Your task to perform on an android device: turn off translation in the chrome app Image 0: 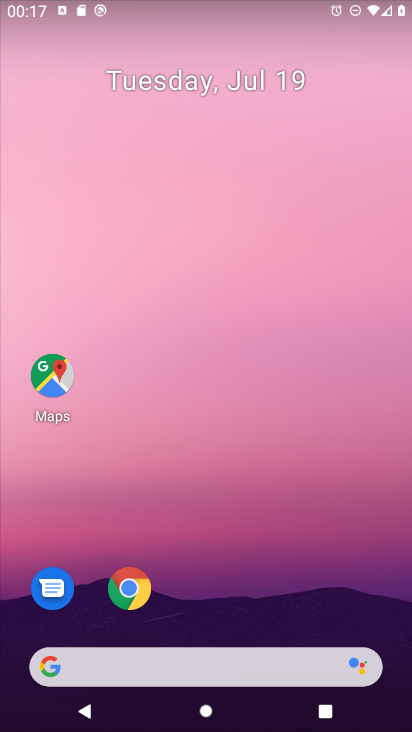
Step 0: click (128, 589)
Your task to perform on an android device: turn off translation in the chrome app Image 1: 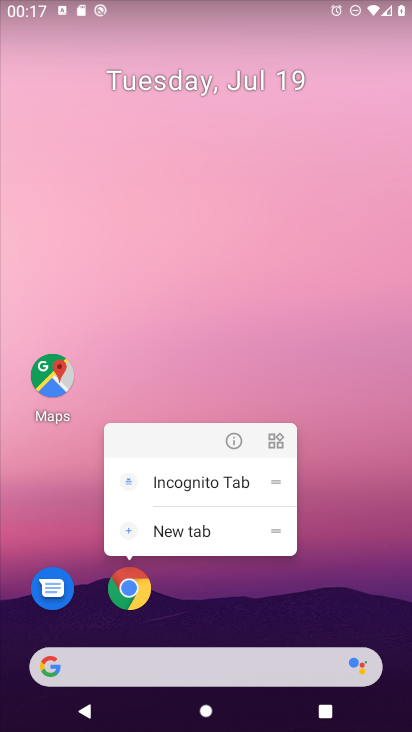
Step 1: click (133, 588)
Your task to perform on an android device: turn off translation in the chrome app Image 2: 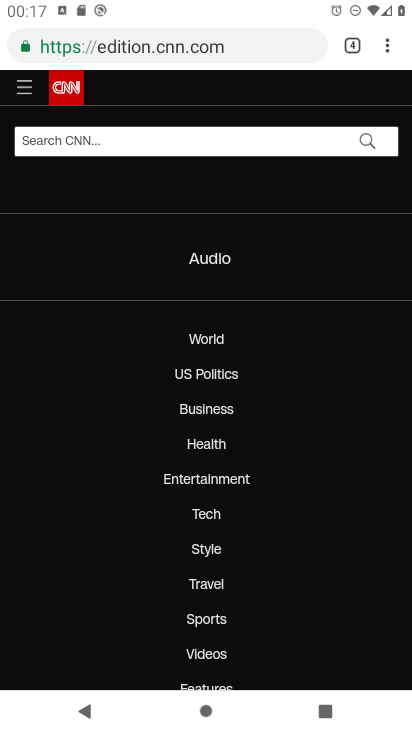
Step 2: click (384, 50)
Your task to perform on an android device: turn off translation in the chrome app Image 3: 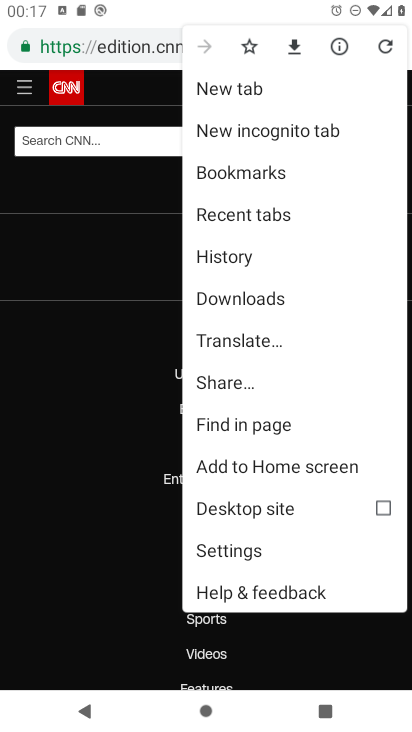
Step 3: click (233, 545)
Your task to perform on an android device: turn off translation in the chrome app Image 4: 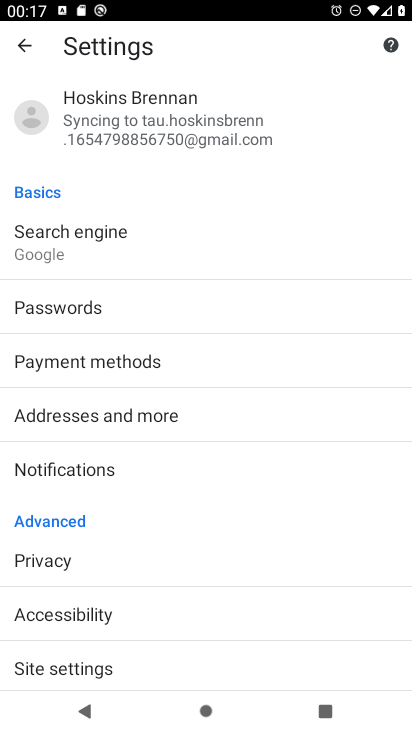
Step 4: drag from (164, 631) to (232, 228)
Your task to perform on an android device: turn off translation in the chrome app Image 5: 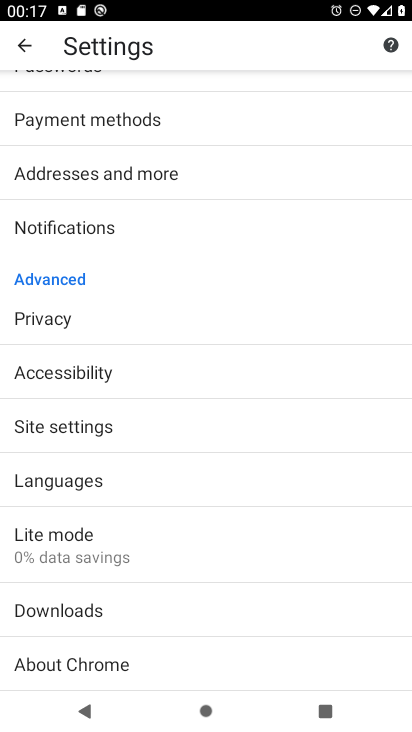
Step 5: click (59, 491)
Your task to perform on an android device: turn off translation in the chrome app Image 6: 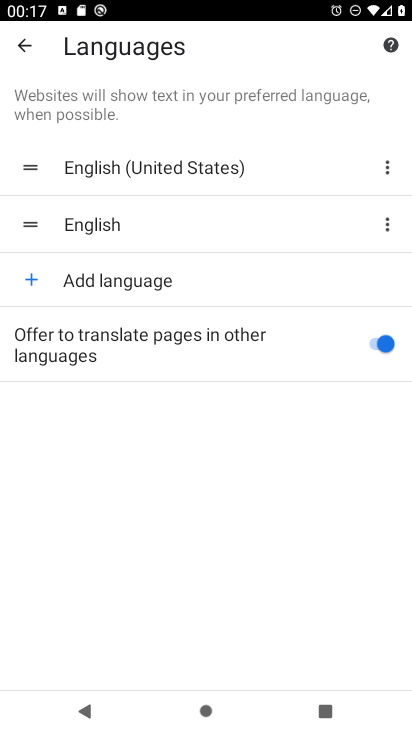
Step 6: click (372, 344)
Your task to perform on an android device: turn off translation in the chrome app Image 7: 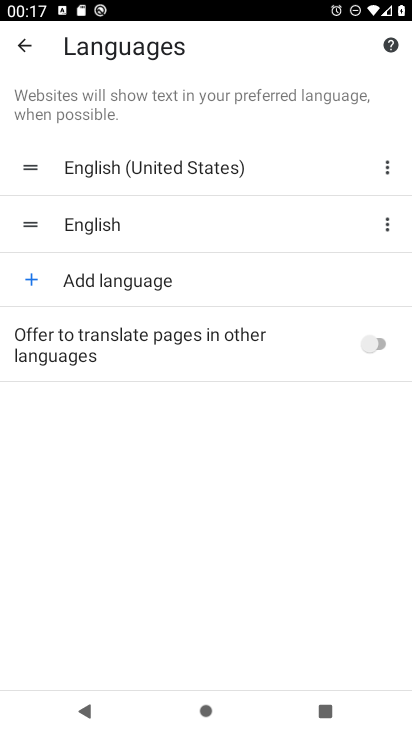
Step 7: task complete